Your task to perform on an android device: Open Maps and search for coffee Image 0: 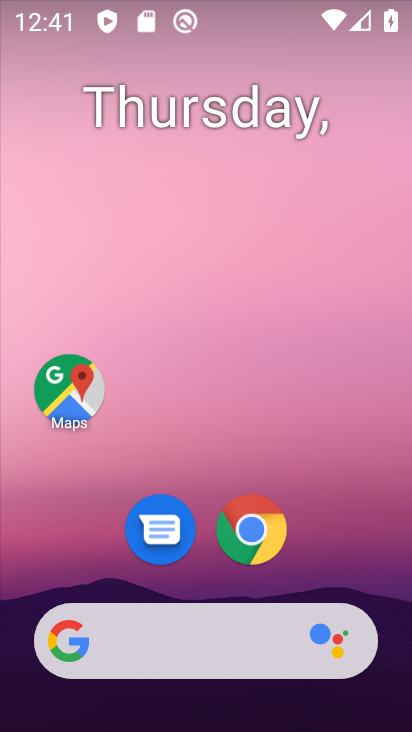
Step 0: drag from (200, 648) to (241, 44)
Your task to perform on an android device: Open Maps and search for coffee Image 1: 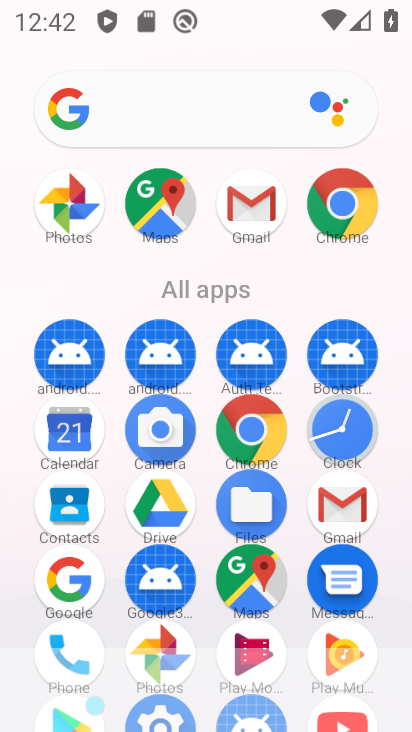
Step 1: click (155, 195)
Your task to perform on an android device: Open Maps and search for coffee Image 2: 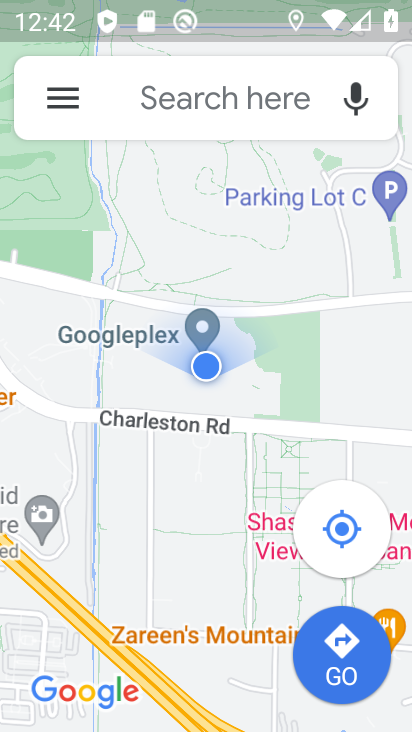
Step 2: click (190, 95)
Your task to perform on an android device: Open Maps and search for coffee Image 3: 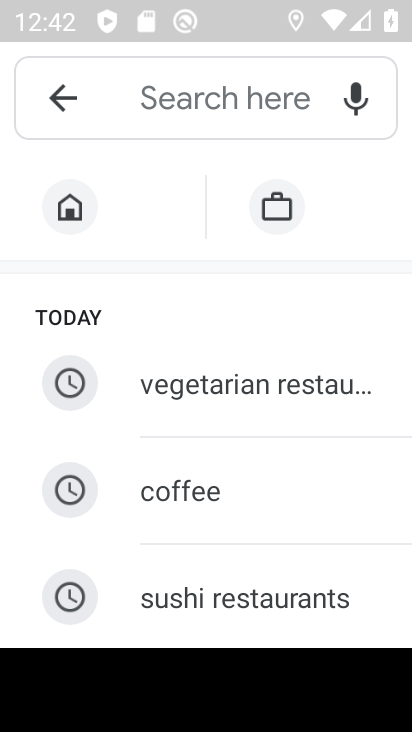
Step 3: type "coffee"
Your task to perform on an android device: Open Maps and search for coffee Image 4: 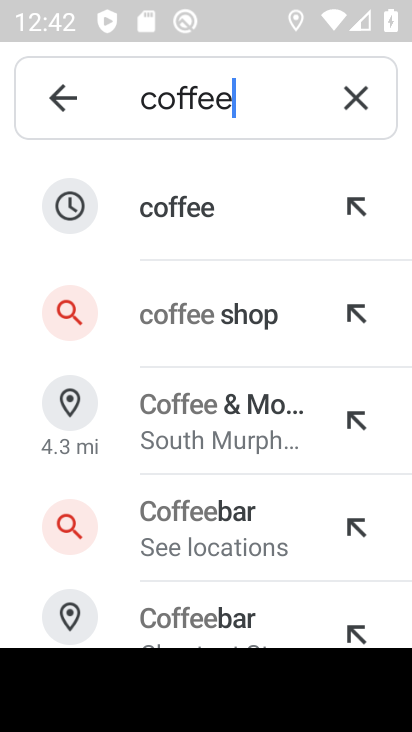
Step 4: click (182, 209)
Your task to perform on an android device: Open Maps and search for coffee Image 5: 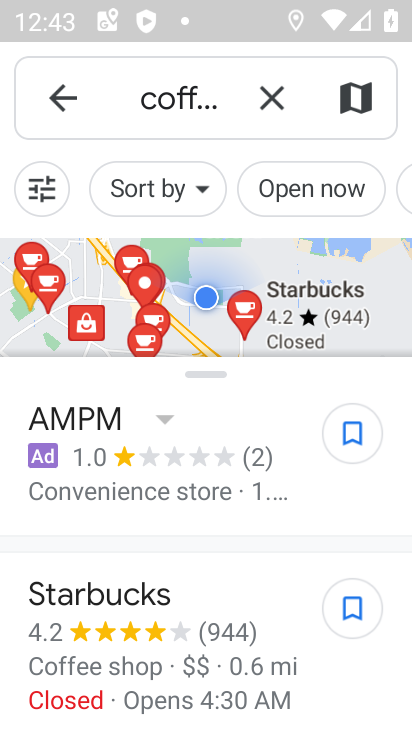
Step 5: task complete